Your task to perform on an android device: Go to notification settings Image 0: 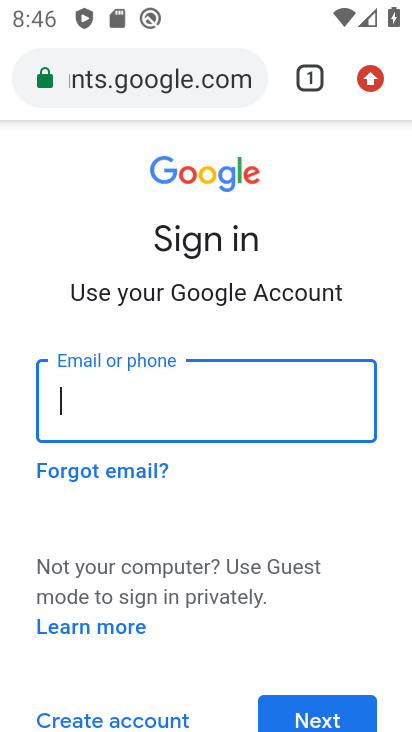
Step 0: press home button
Your task to perform on an android device: Go to notification settings Image 1: 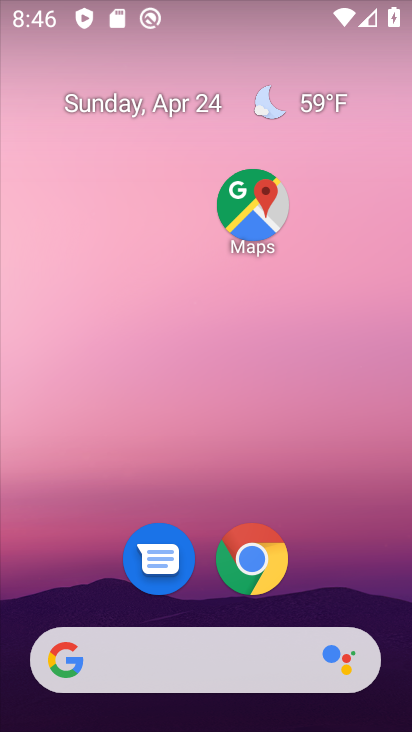
Step 1: drag from (61, 578) to (184, 256)
Your task to perform on an android device: Go to notification settings Image 2: 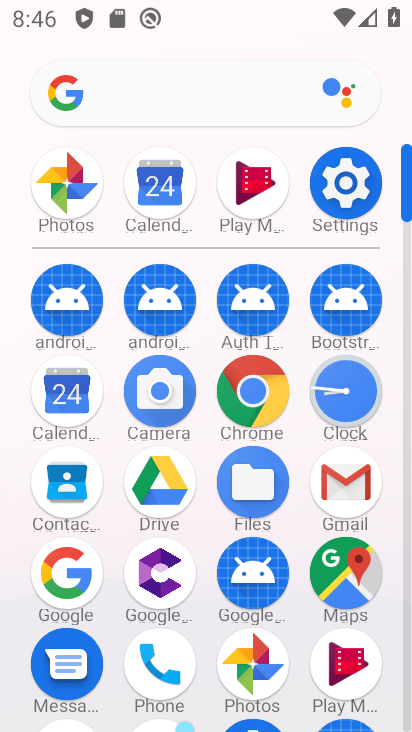
Step 2: click (337, 176)
Your task to perform on an android device: Go to notification settings Image 3: 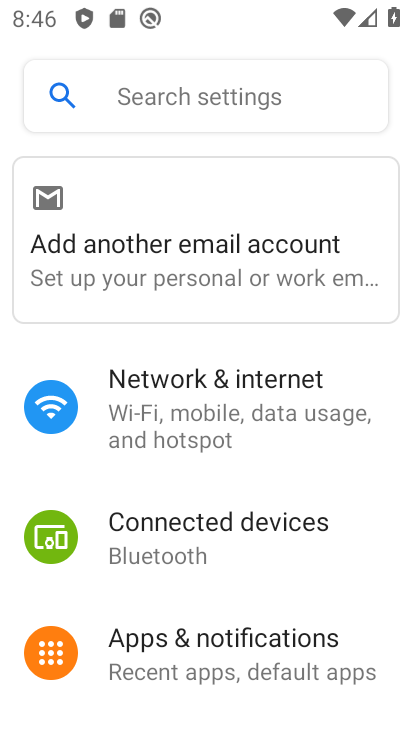
Step 3: click (210, 644)
Your task to perform on an android device: Go to notification settings Image 4: 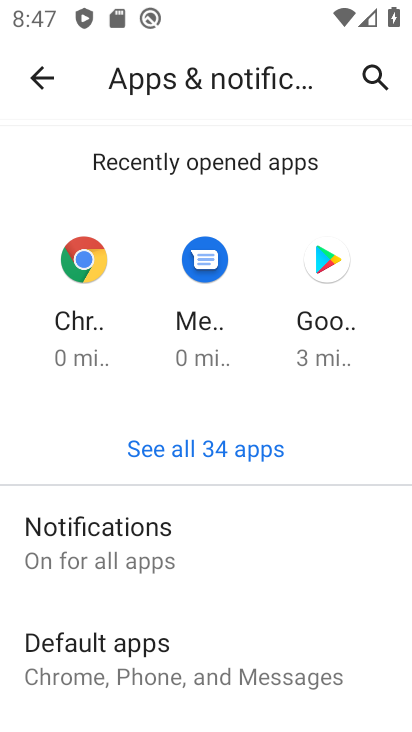
Step 4: click (233, 565)
Your task to perform on an android device: Go to notification settings Image 5: 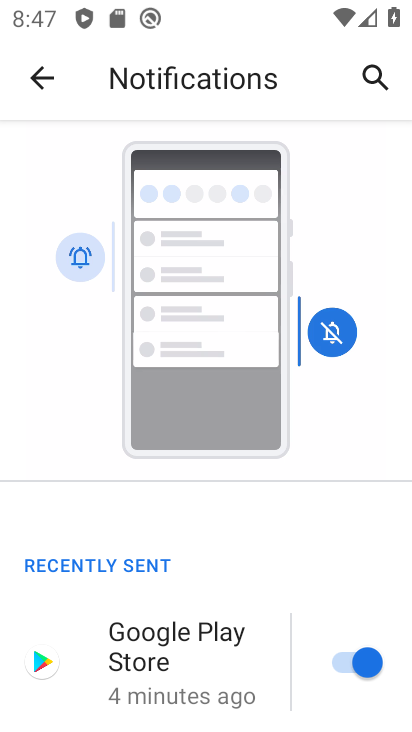
Step 5: task complete